Your task to perform on an android device: What is the news today? Image 0: 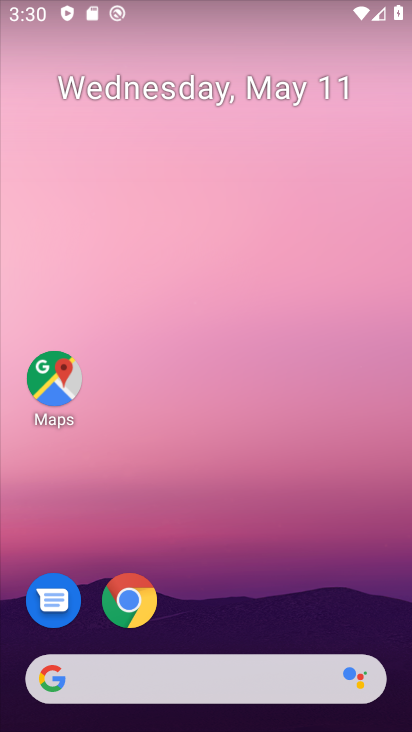
Step 0: press home button
Your task to perform on an android device: What is the news today? Image 1: 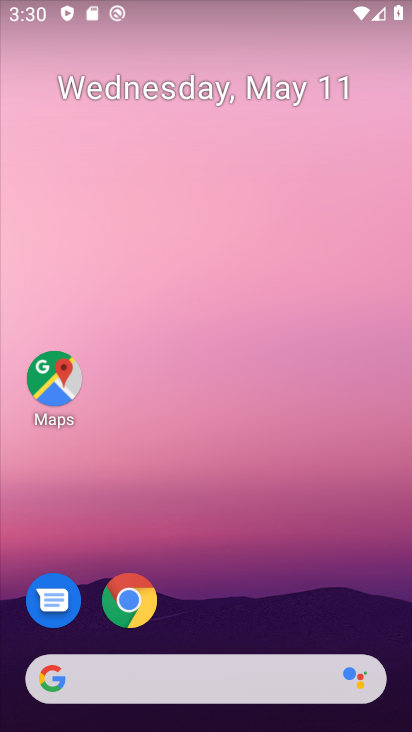
Step 1: drag from (106, 200) to (264, 722)
Your task to perform on an android device: What is the news today? Image 2: 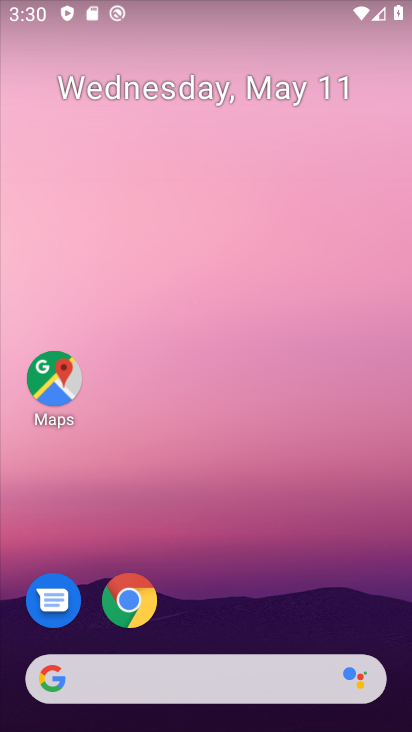
Step 2: drag from (216, 494) to (122, 62)
Your task to perform on an android device: What is the news today? Image 3: 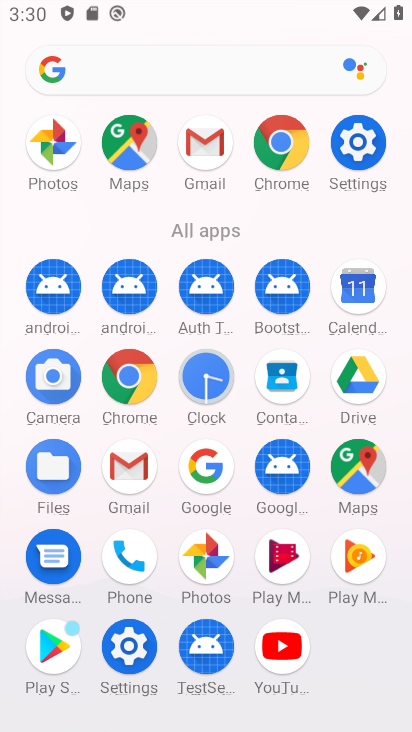
Step 3: click (0, 210)
Your task to perform on an android device: What is the news today? Image 4: 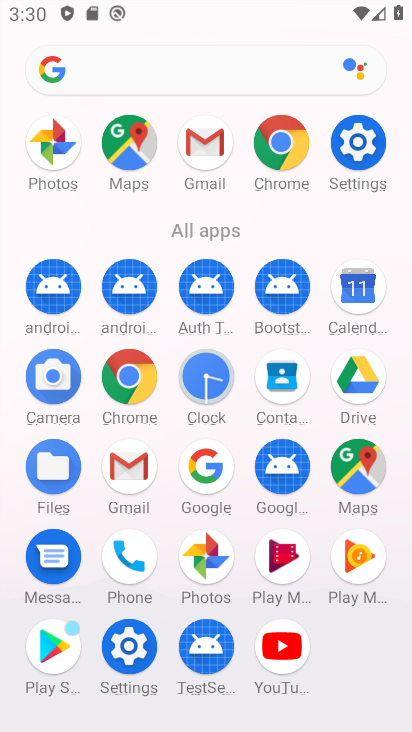
Step 4: press home button
Your task to perform on an android device: What is the news today? Image 5: 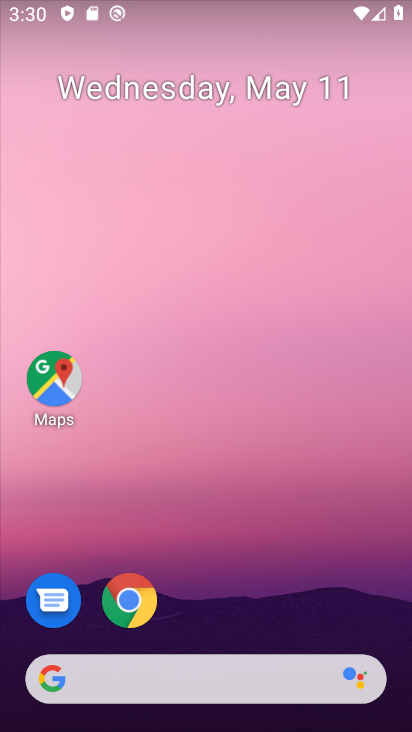
Step 5: drag from (67, 163) to (400, 535)
Your task to perform on an android device: What is the news today? Image 6: 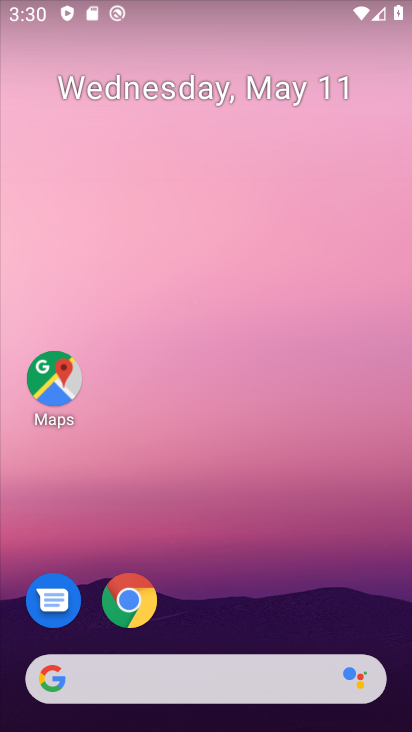
Step 6: click (378, 365)
Your task to perform on an android device: What is the news today? Image 7: 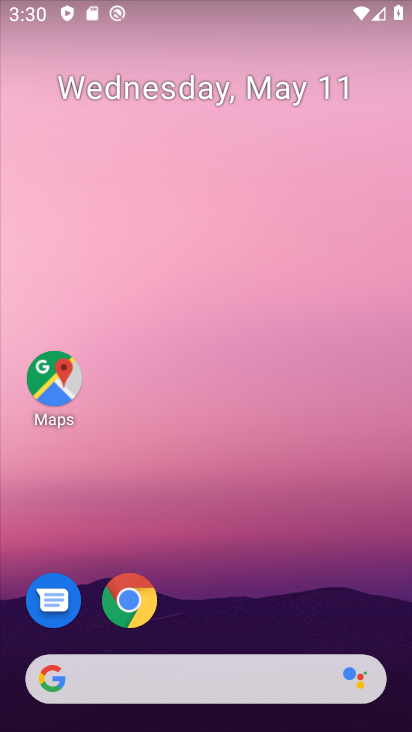
Step 7: task complete